Your task to perform on an android device: change the upload size in google photos Image 0: 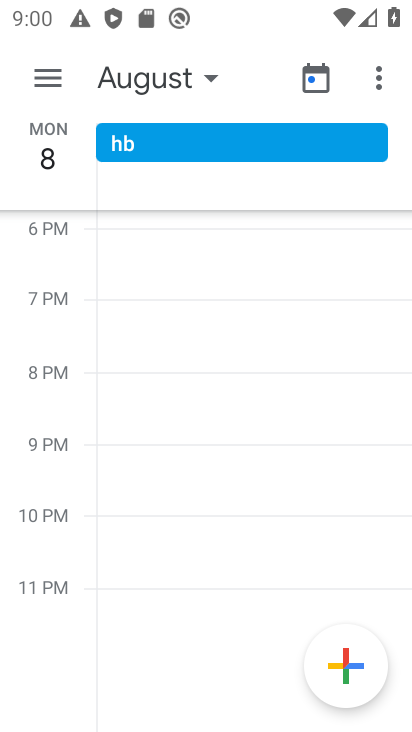
Step 0: press home button
Your task to perform on an android device: change the upload size in google photos Image 1: 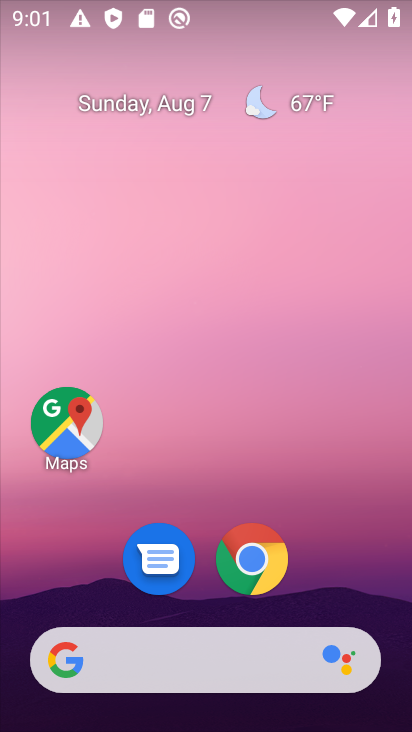
Step 1: drag from (377, 562) to (277, 130)
Your task to perform on an android device: change the upload size in google photos Image 2: 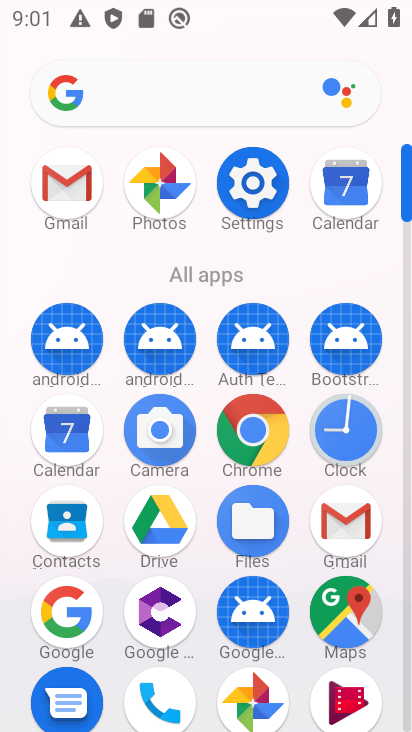
Step 2: drag from (302, 665) to (277, 407)
Your task to perform on an android device: change the upload size in google photos Image 3: 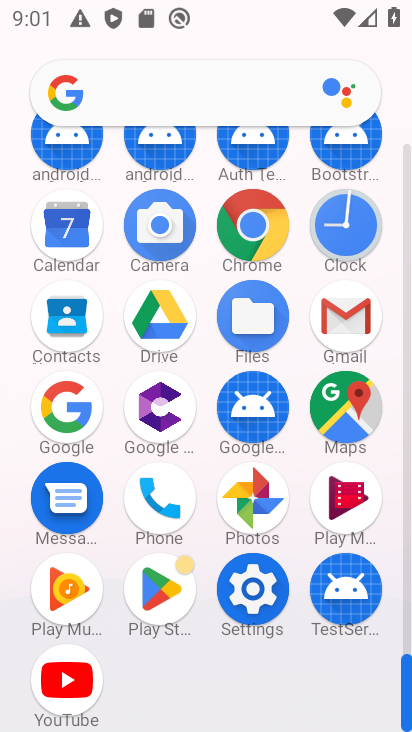
Step 3: click (263, 518)
Your task to perform on an android device: change the upload size in google photos Image 4: 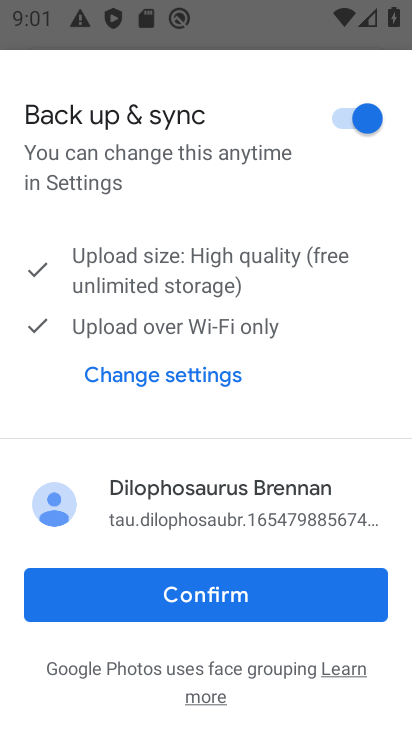
Step 4: click (297, 590)
Your task to perform on an android device: change the upload size in google photos Image 5: 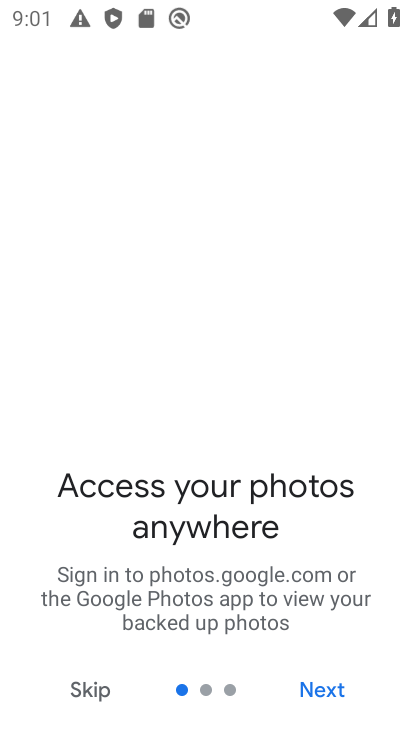
Step 5: click (87, 682)
Your task to perform on an android device: change the upload size in google photos Image 6: 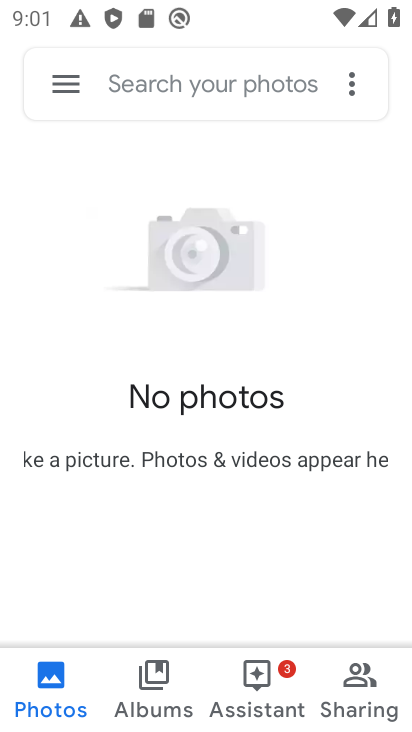
Step 6: click (71, 92)
Your task to perform on an android device: change the upload size in google photos Image 7: 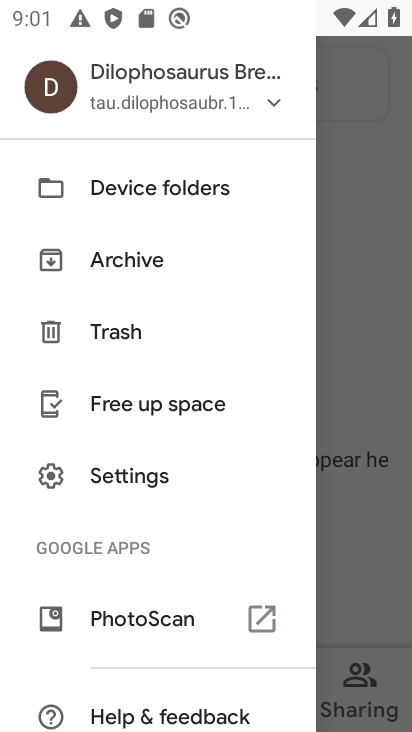
Step 7: drag from (194, 551) to (166, 272)
Your task to perform on an android device: change the upload size in google photos Image 8: 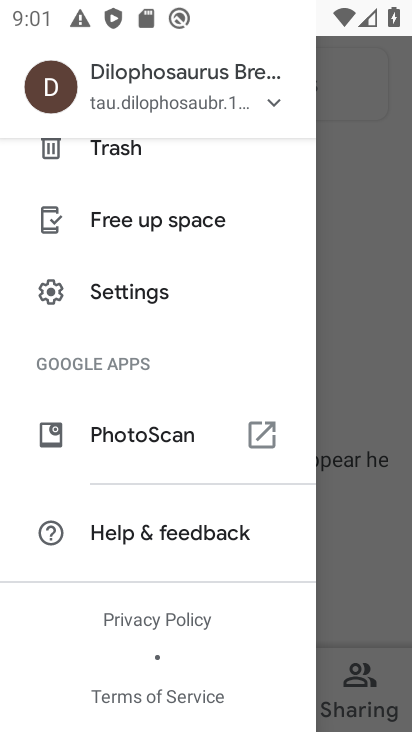
Step 8: click (118, 298)
Your task to perform on an android device: change the upload size in google photos Image 9: 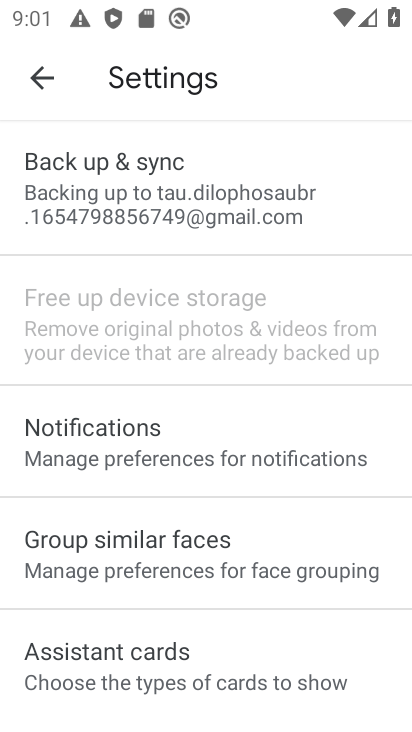
Step 9: click (135, 177)
Your task to perform on an android device: change the upload size in google photos Image 10: 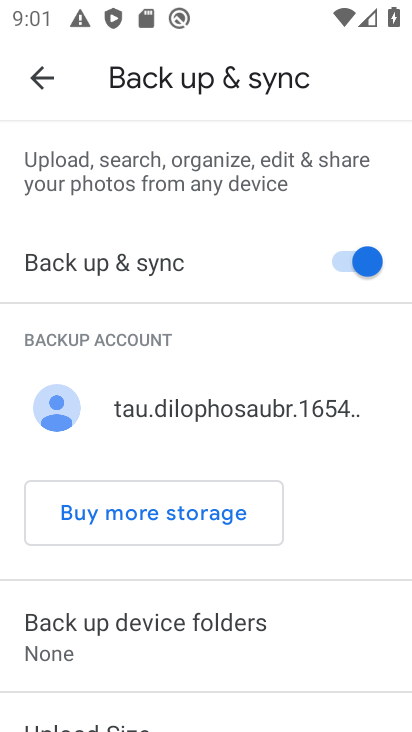
Step 10: drag from (231, 553) to (180, 359)
Your task to perform on an android device: change the upload size in google photos Image 11: 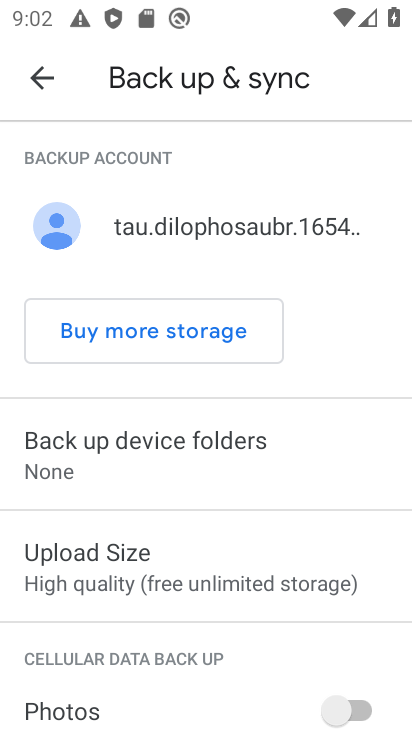
Step 11: click (157, 558)
Your task to perform on an android device: change the upload size in google photos Image 12: 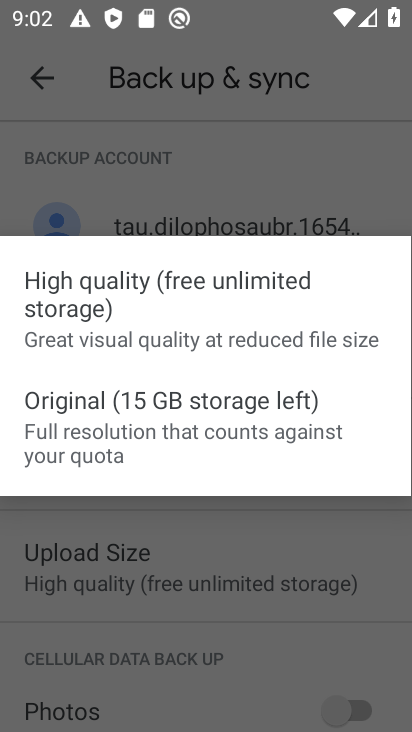
Step 12: click (108, 408)
Your task to perform on an android device: change the upload size in google photos Image 13: 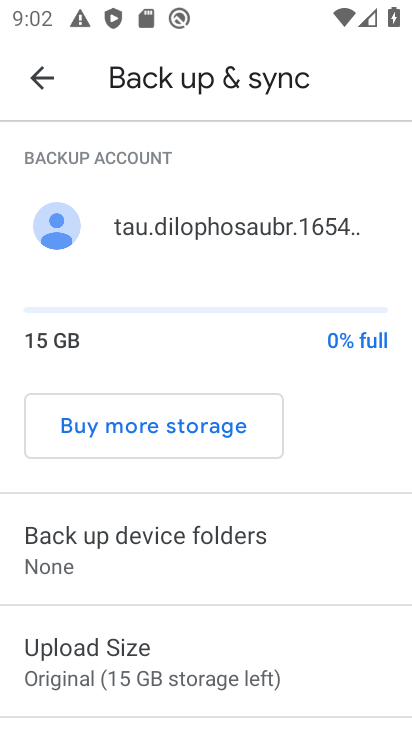
Step 13: task complete